Your task to perform on an android device: Toggle the flashlight Image 0: 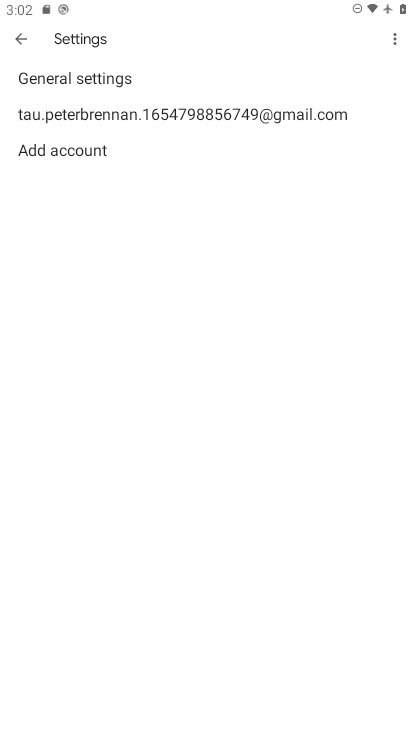
Step 0: press home button
Your task to perform on an android device: Toggle the flashlight Image 1: 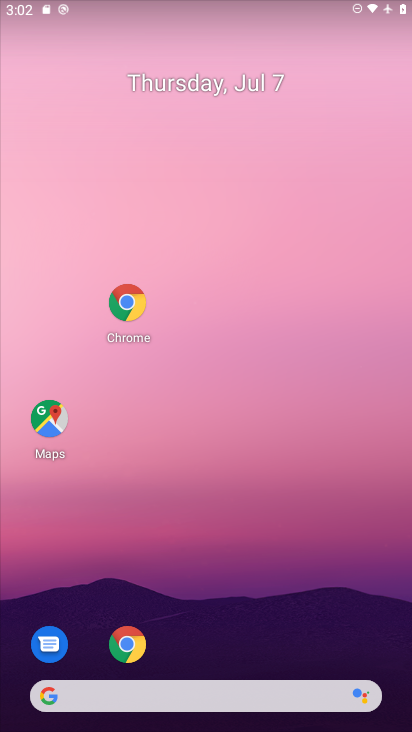
Step 1: task complete